Your task to perform on an android device: Go to Reddit.com Image 0: 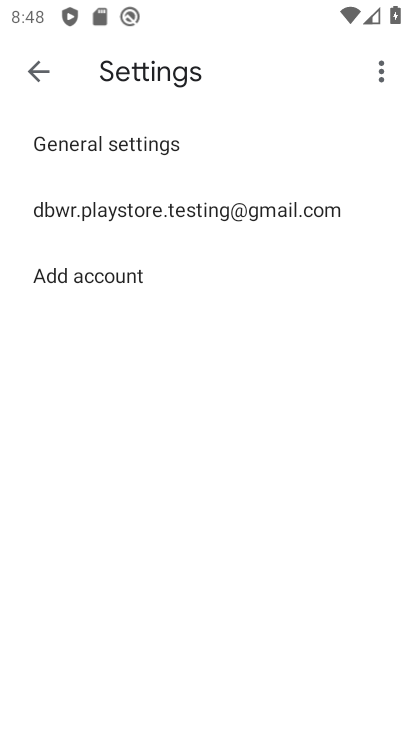
Step 0: press home button
Your task to perform on an android device: Go to Reddit.com Image 1: 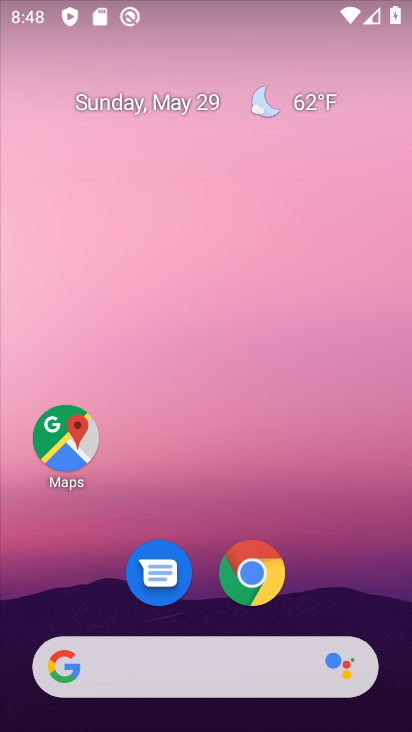
Step 1: click (62, 675)
Your task to perform on an android device: Go to Reddit.com Image 2: 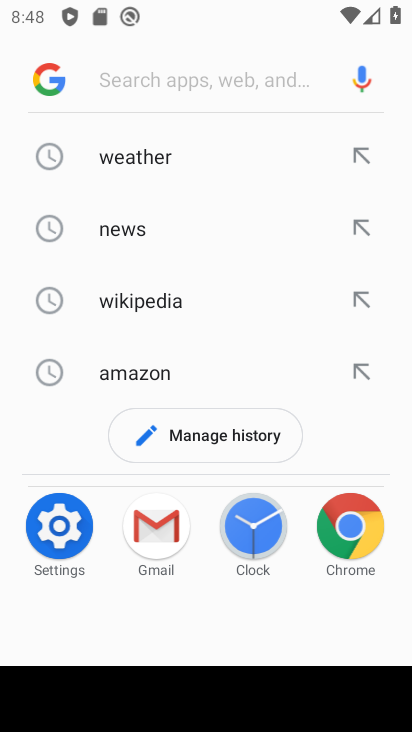
Step 2: type "Reddit.com"
Your task to perform on an android device: Go to Reddit.com Image 3: 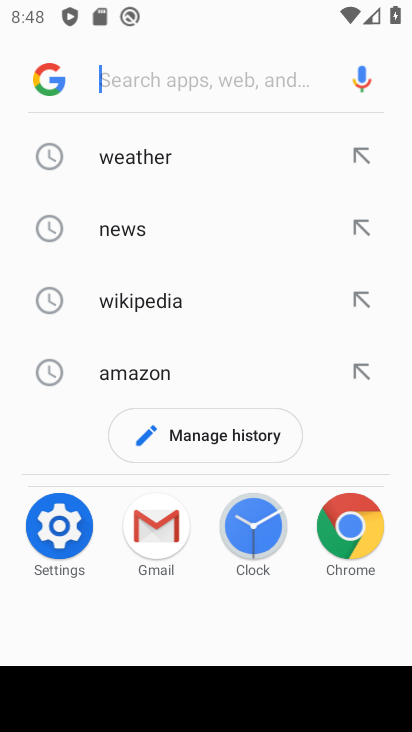
Step 3: click (178, 66)
Your task to perform on an android device: Go to Reddit.com Image 4: 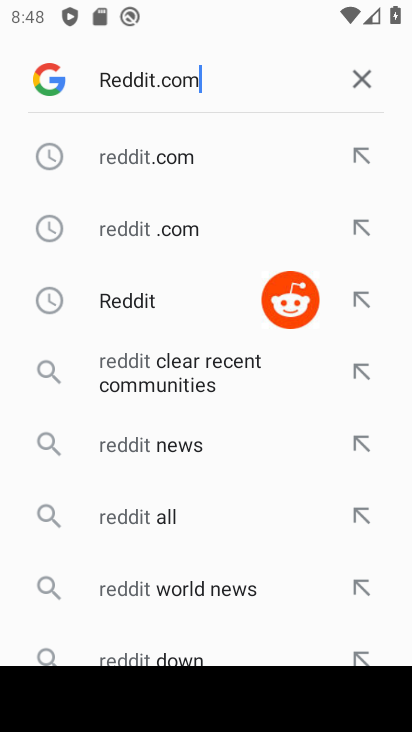
Step 4: click (172, 83)
Your task to perform on an android device: Go to Reddit.com Image 5: 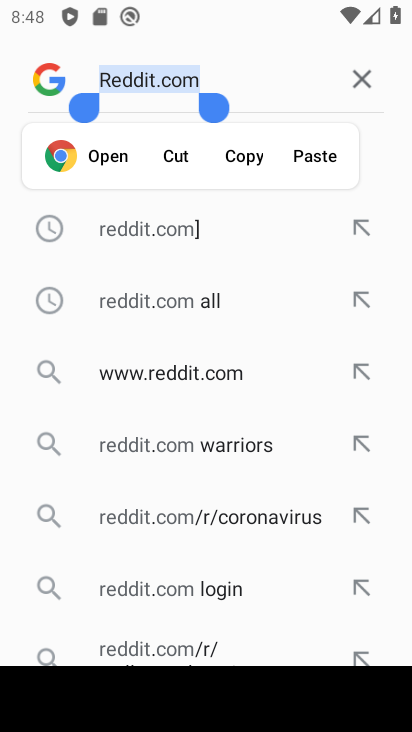
Step 5: click (154, 157)
Your task to perform on an android device: Go to Reddit.com Image 6: 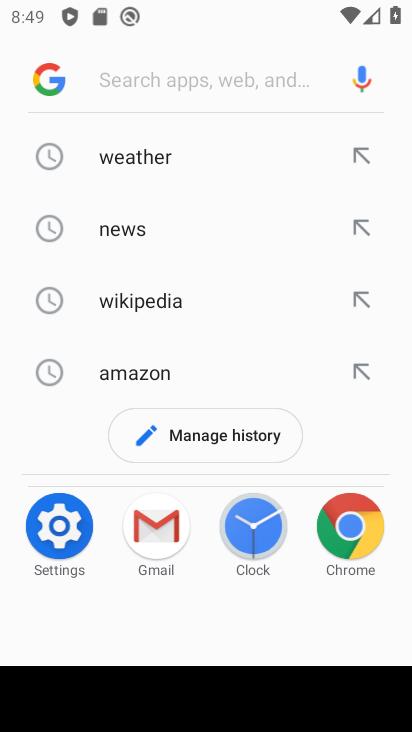
Step 6: type "Reddit.com"
Your task to perform on an android device: Go to Reddit.com Image 7: 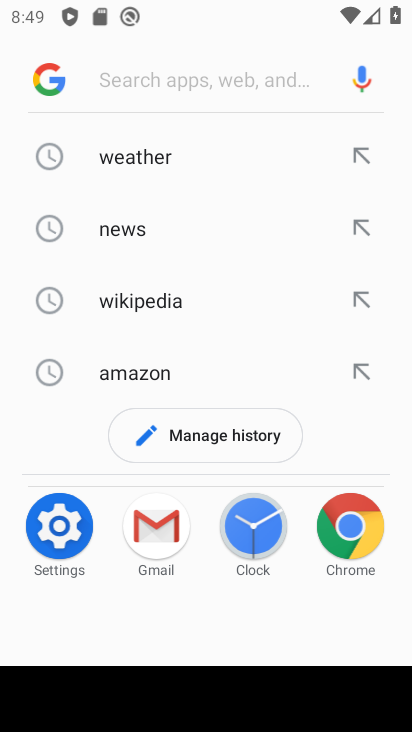
Step 7: click (206, 83)
Your task to perform on an android device: Go to Reddit.com Image 8: 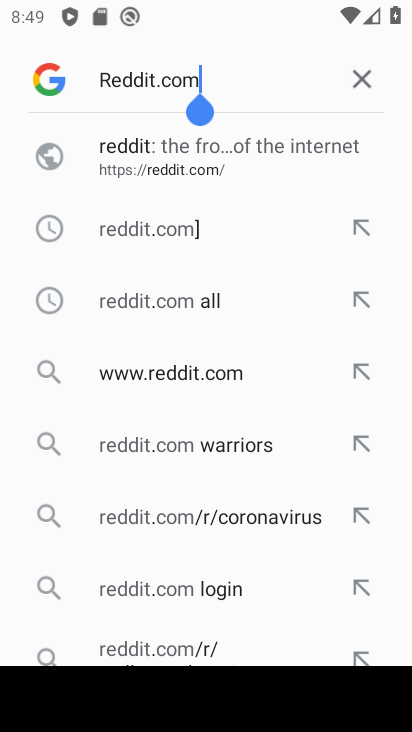
Step 8: click (130, 150)
Your task to perform on an android device: Go to Reddit.com Image 9: 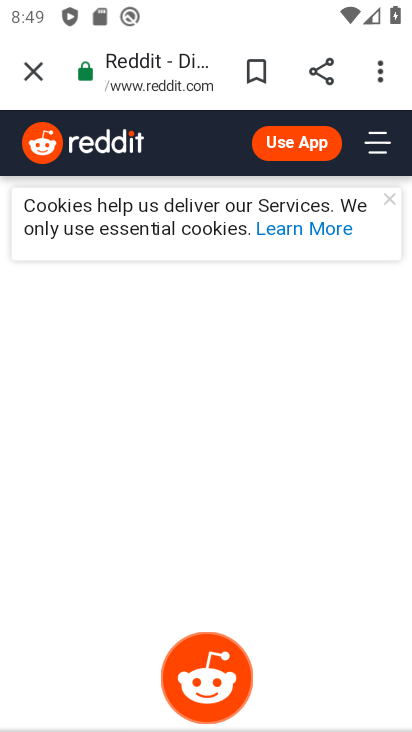
Step 9: task complete